Your task to perform on an android device: toggle wifi Image 0: 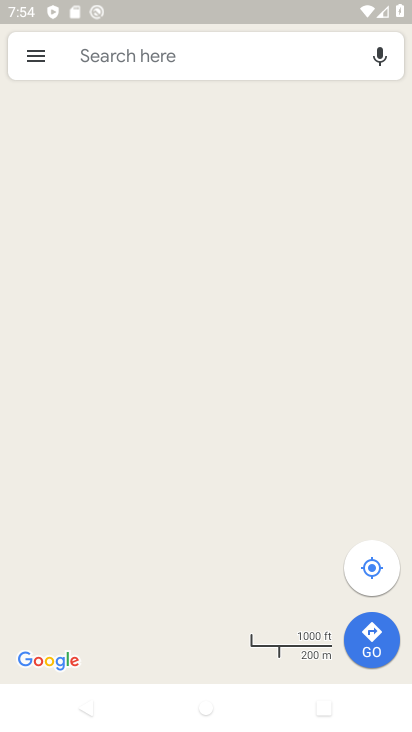
Step 0: press back button
Your task to perform on an android device: toggle wifi Image 1: 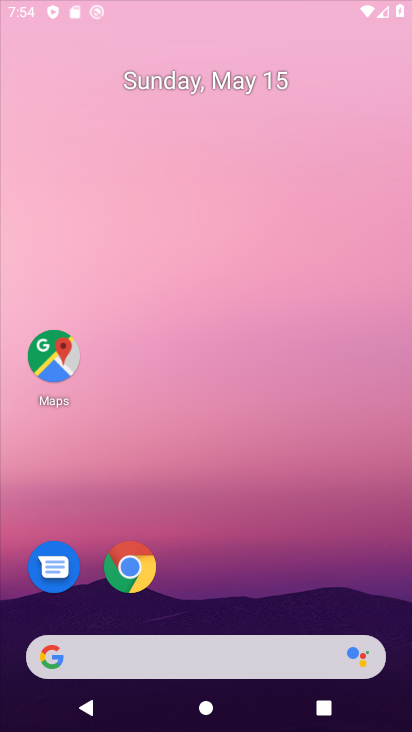
Step 1: drag from (80, 6) to (126, 525)
Your task to perform on an android device: toggle wifi Image 2: 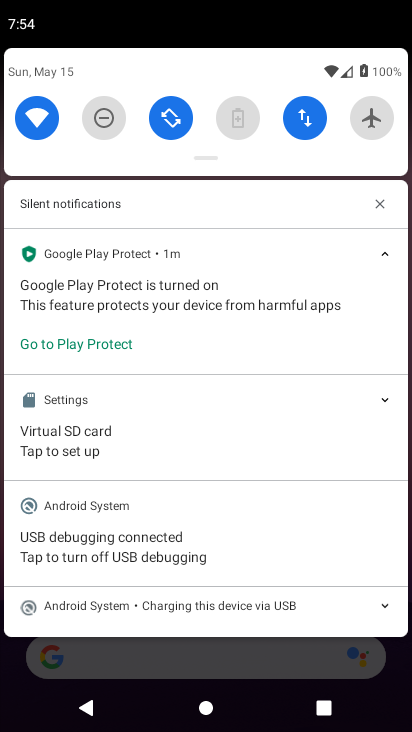
Step 2: click (44, 118)
Your task to perform on an android device: toggle wifi Image 3: 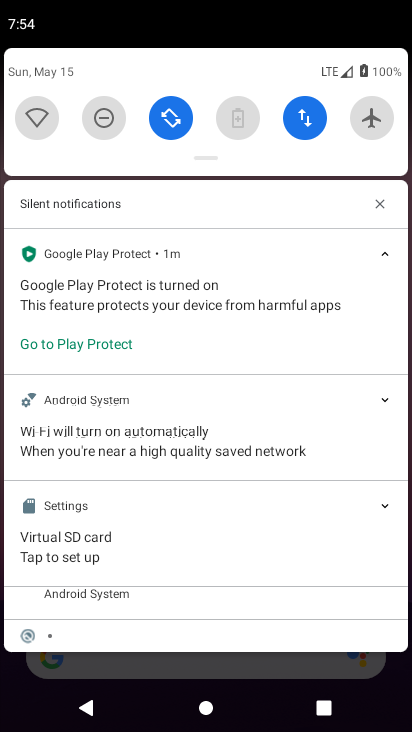
Step 3: task complete